Your task to perform on an android device: toggle airplane mode Image 0: 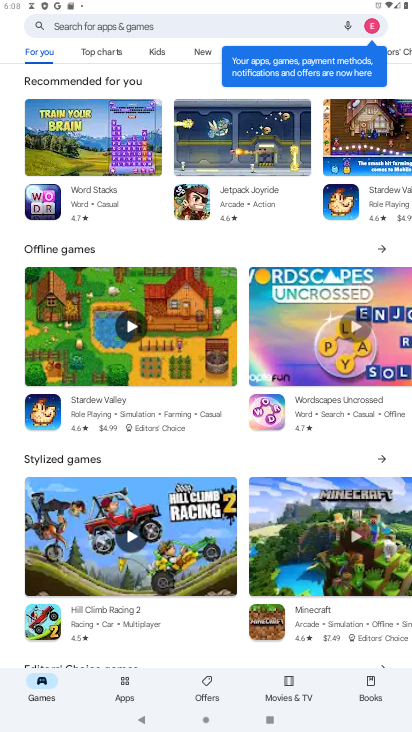
Step 0: press home button
Your task to perform on an android device: toggle airplane mode Image 1: 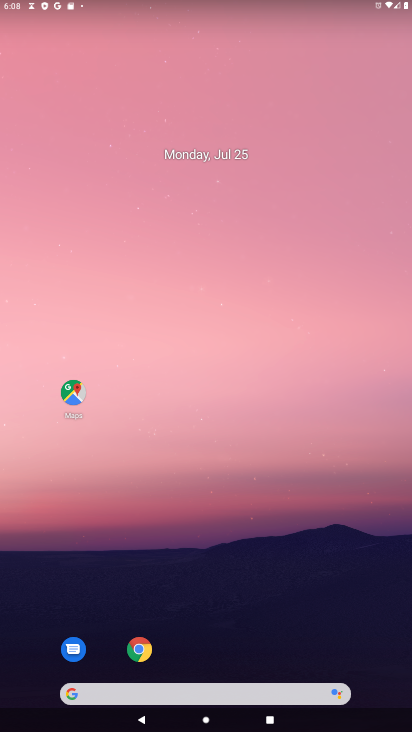
Step 1: drag from (172, 667) to (390, 5)
Your task to perform on an android device: toggle airplane mode Image 2: 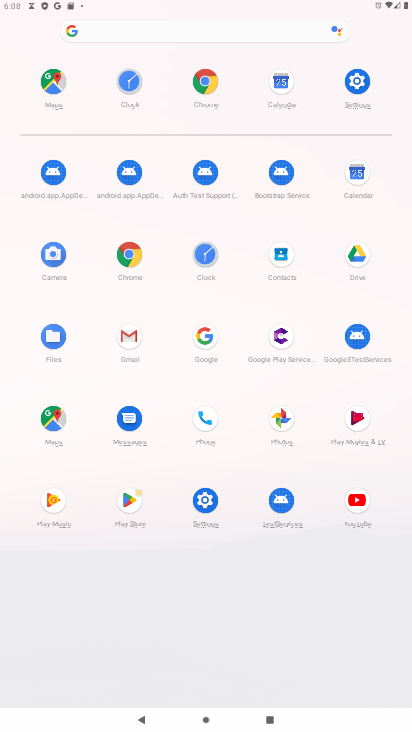
Step 2: click (361, 84)
Your task to perform on an android device: toggle airplane mode Image 3: 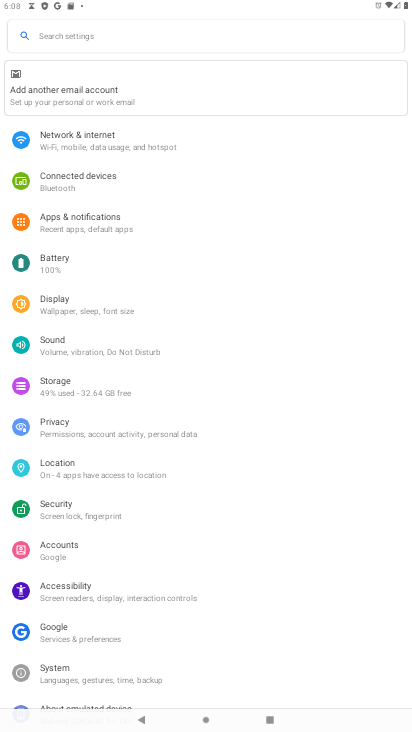
Step 3: click (116, 143)
Your task to perform on an android device: toggle airplane mode Image 4: 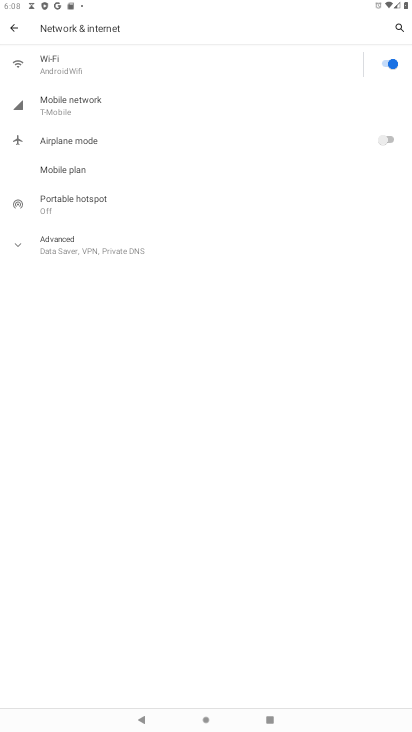
Step 4: click (390, 135)
Your task to perform on an android device: toggle airplane mode Image 5: 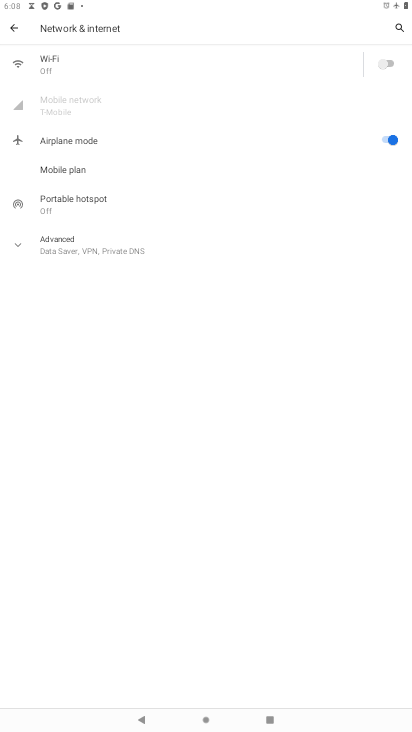
Step 5: task complete